Your task to perform on an android device: Open Wikipedia Image 0: 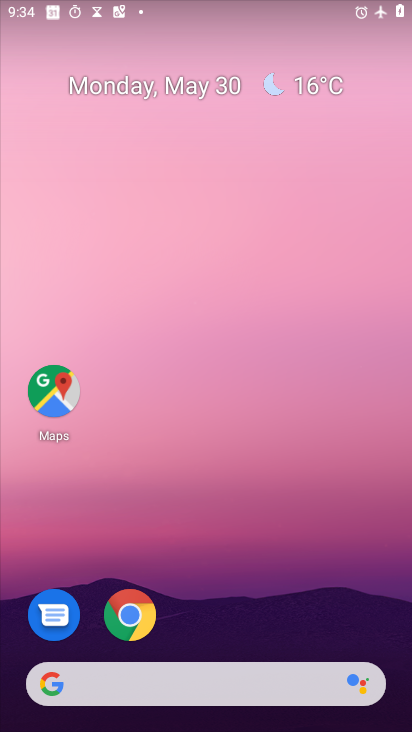
Step 0: drag from (353, 558) to (370, 15)
Your task to perform on an android device: Open Wikipedia Image 1: 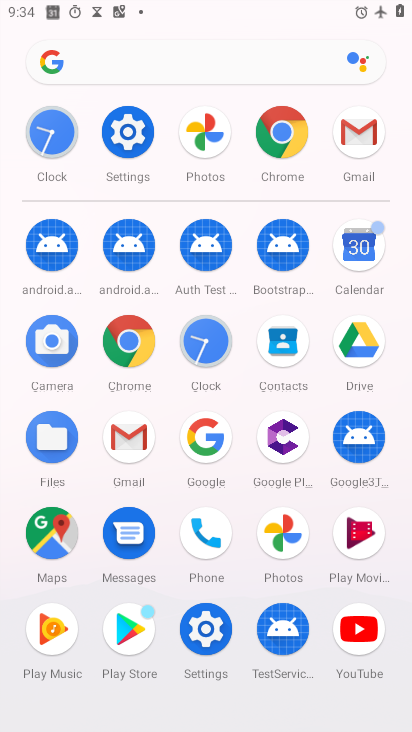
Step 1: click (293, 124)
Your task to perform on an android device: Open Wikipedia Image 2: 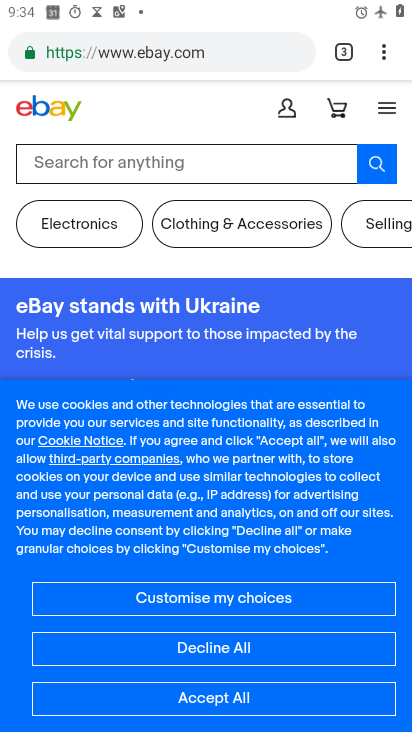
Step 2: click (228, 58)
Your task to perform on an android device: Open Wikipedia Image 3: 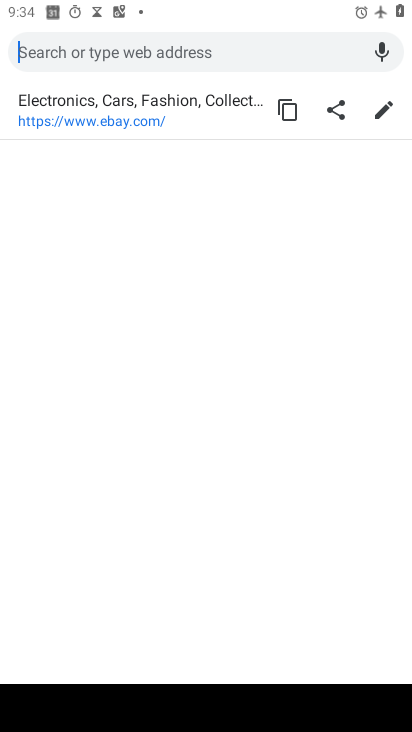
Step 3: type "wikipedia"
Your task to perform on an android device: Open Wikipedia Image 4: 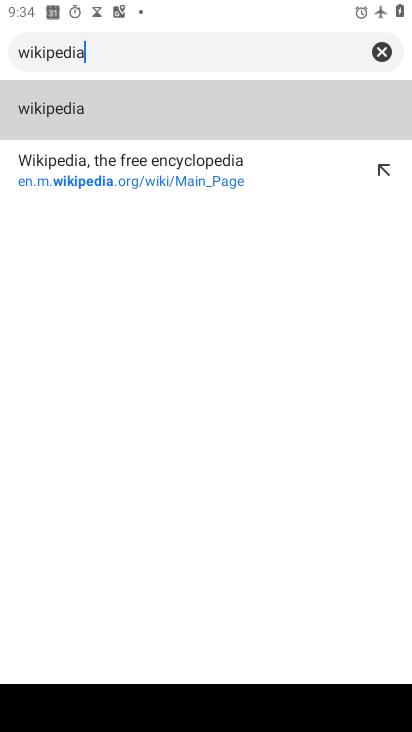
Step 4: click (123, 171)
Your task to perform on an android device: Open Wikipedia Image 5: 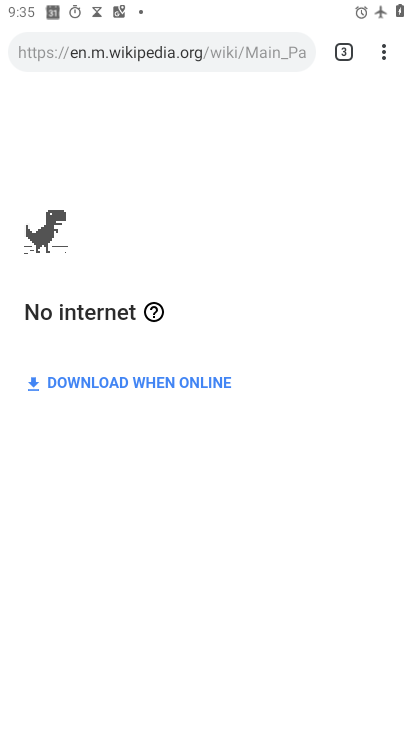
Step 5: task complete